Your task to perform on an android device: turn pop-ups off in chrome Image 0: 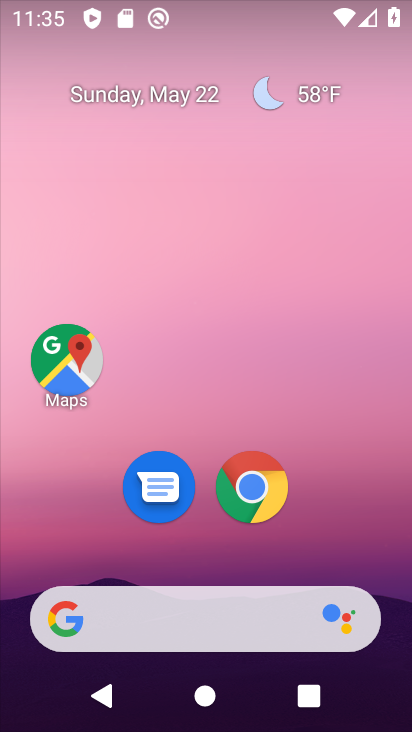
Step 0: click (262, 506)
Your task to perform on an android device: turn pop-ups off in chrome Image 1: 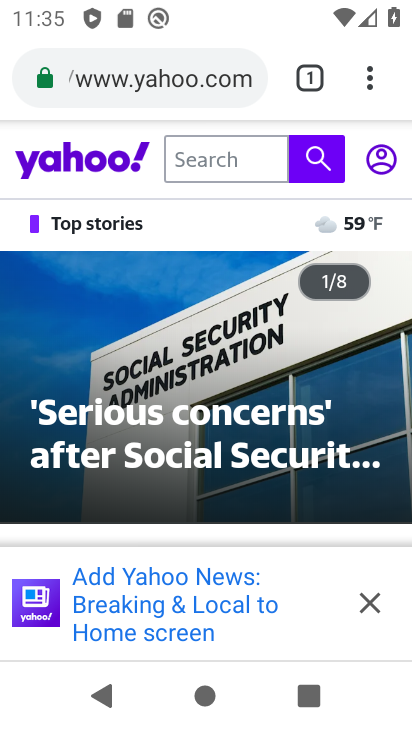
Step 1: drag from (367, 87) to (234, 555)
Your task to perform on an android device: turn pop-ups off in chrome Image 2: 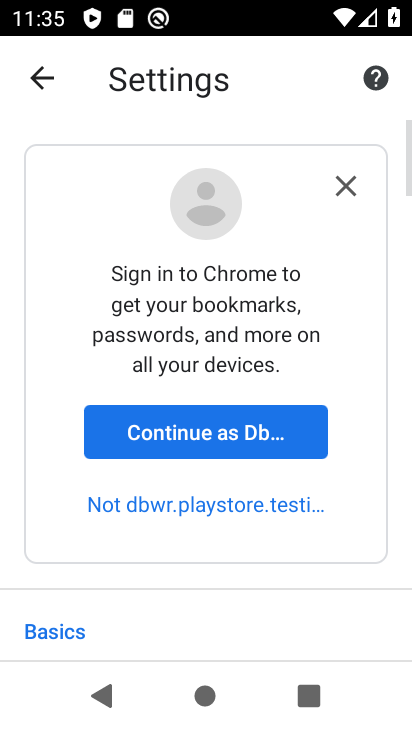
Step 2: drag from (313, 598) to (323, 307)
Your task to perform on an android device: turn pop-ups off in chrome Image 3: 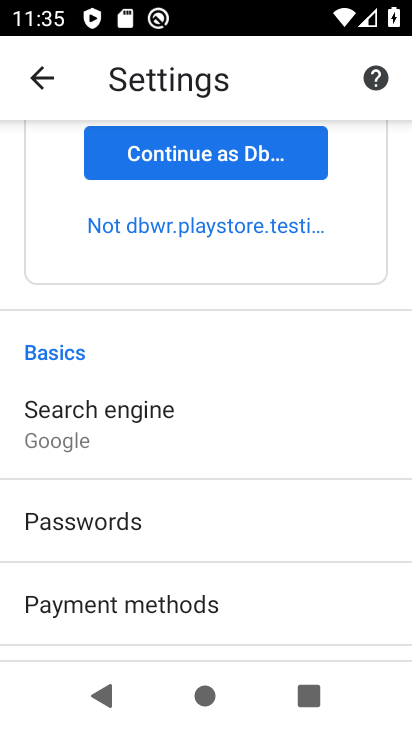
Step 3: drag from (146, 579) to (121, 278)
Your task to perform on an android device: turn pop-ups off in chrome Image 4: 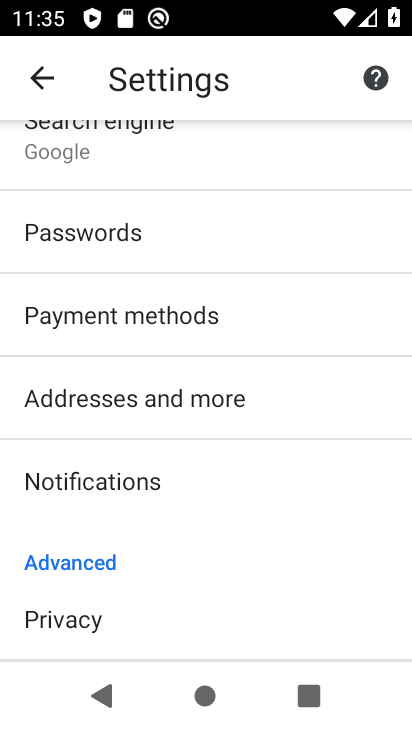
Step 4: drag from (136, 589) to (154, 277)
Your task to perform on an android device: turn pop-ups off in chrome Image 5: 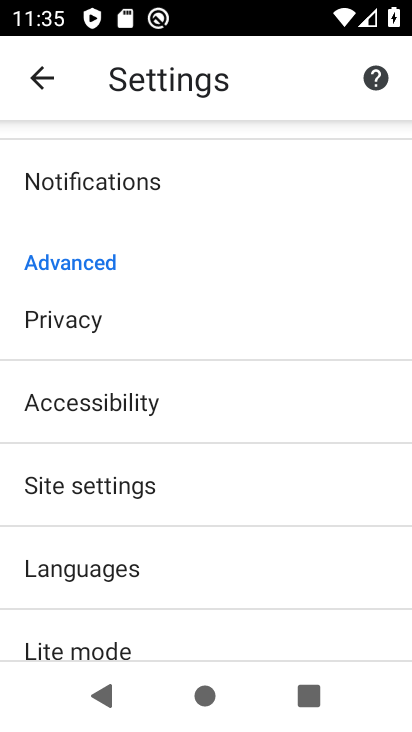
Step 5: click (144, 483)
Your task to perform on an android device: turn pop-ups off in chrome Image 6: 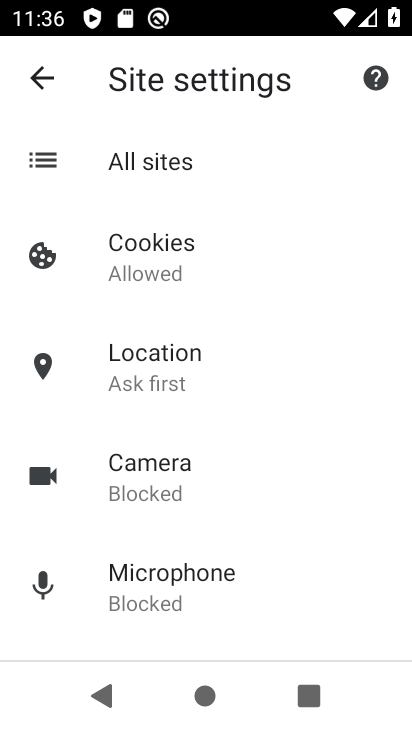
Step 6: drag from (211, 570) to (298, 65)
Your task to perform on an android device: turn pop-ups off in chrome Image 7: 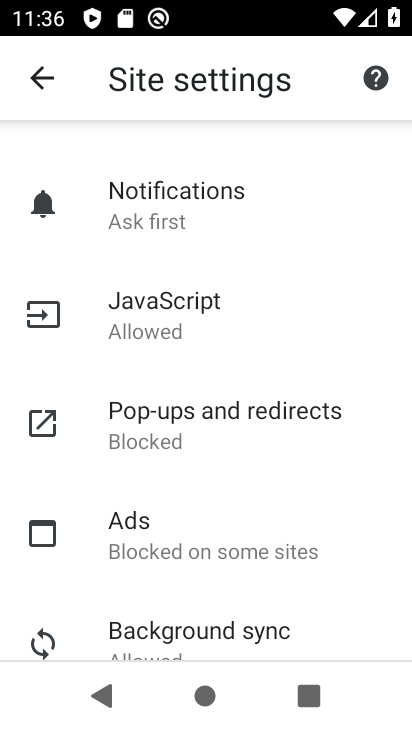
Step 7: click (222, 419)
Your task to perform on an android device: turn pop-ups off in chrome Image 8: 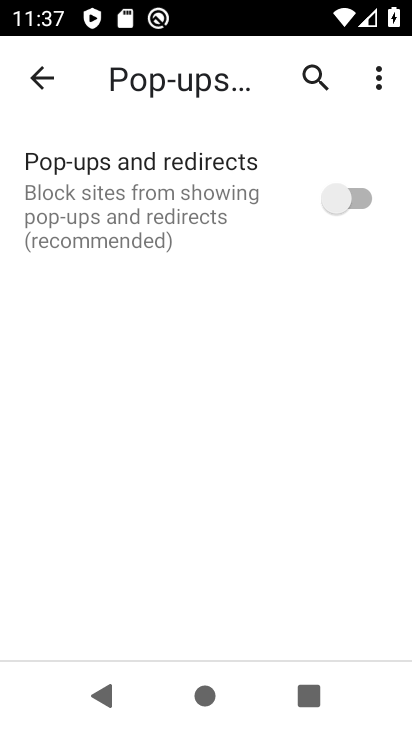
Step 8: task complete